Your task to perform on an android device: See recent photos Image 0: 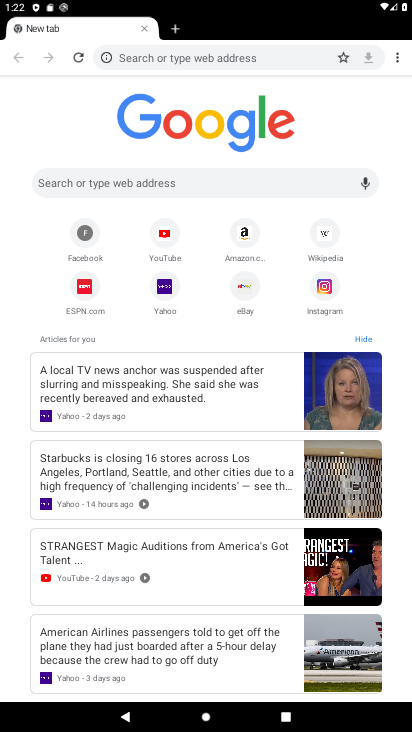
Step 0: click (394, 65)
Your task to perform on an android device: See recent photos Image 1: 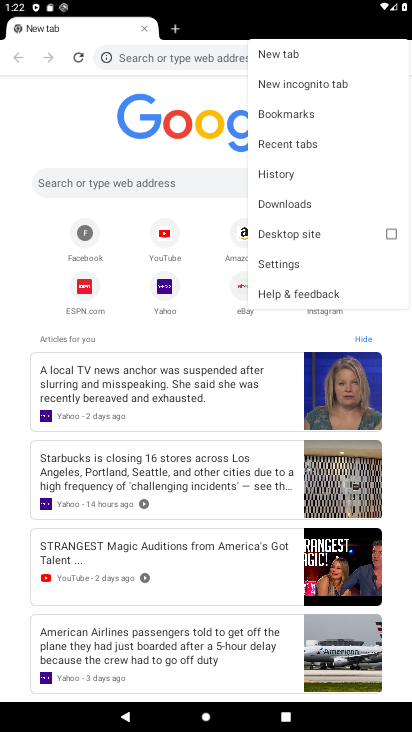
Step 1: click (278, 258)
Your task to perform on an android device: See recent photos Image 2: 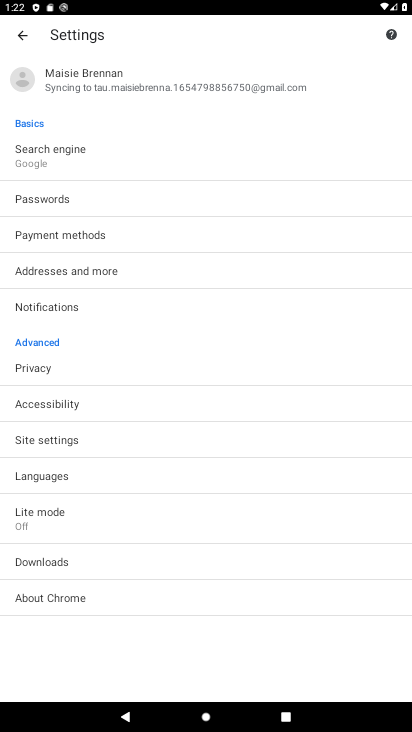
Step 2: click (198, 438)
Your task to perform on an android device: See recent photos Image 3: 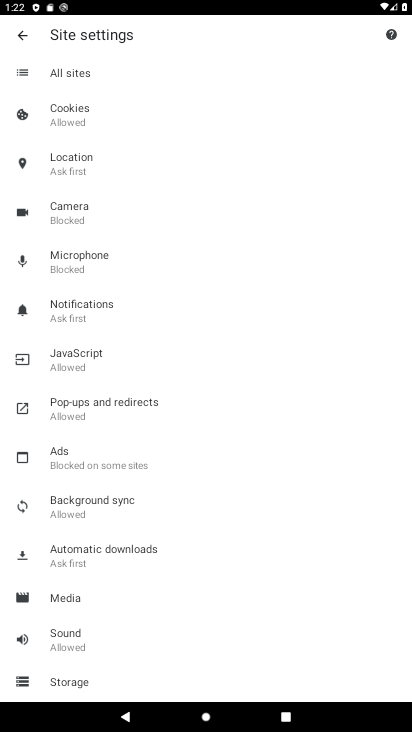
Step 3: press back button
Your task to perform on an android device: See recent photos Image 4: 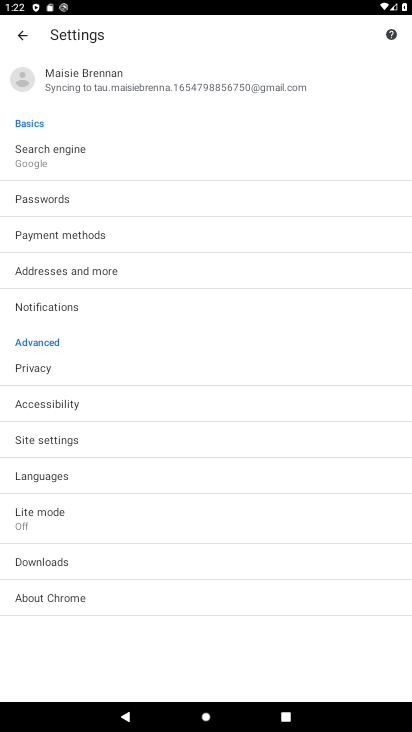
Step 4: press back button
Your task to perform on an android device: See recent photos Image 5: 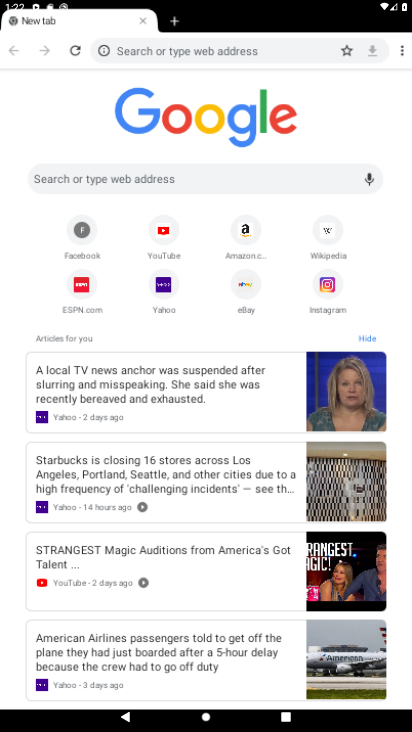
Step 5: press back button
Your task to perform on an android device: See recent photos Image 6: 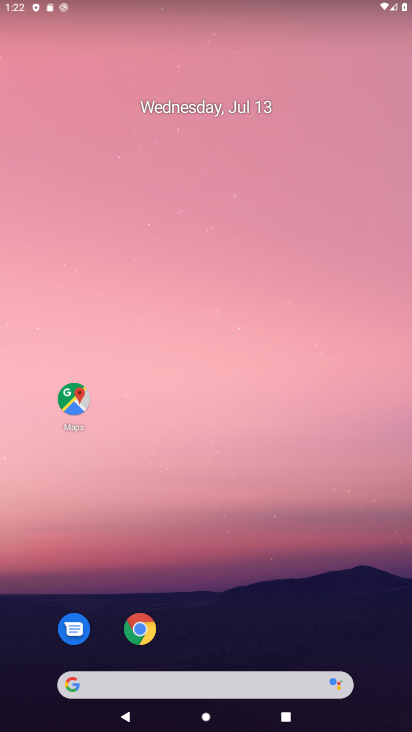
Step 6: drag from (296, 617) to (302, 240)
Your task to perform on an android device: See recent photos Image 7: 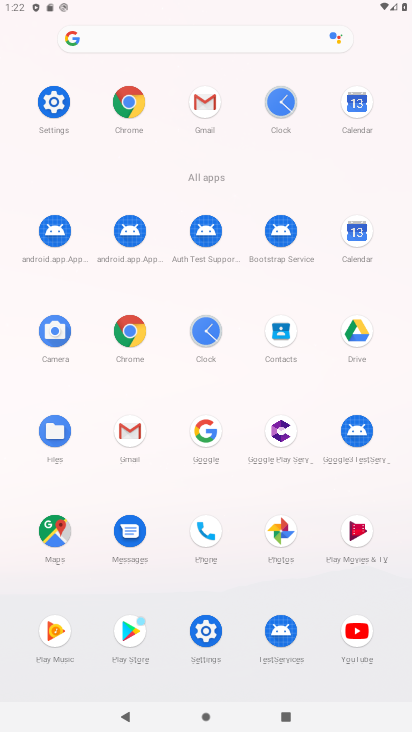
Step 7: click (272, 530)
Your task to perform on an android device: See recent photos Image 8: 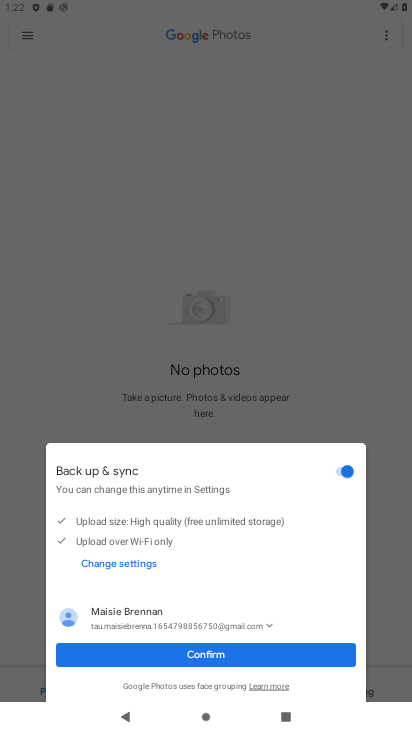
Step 8: click (276, 659)
Your task to perform on an android device: See recent photos Image 9: 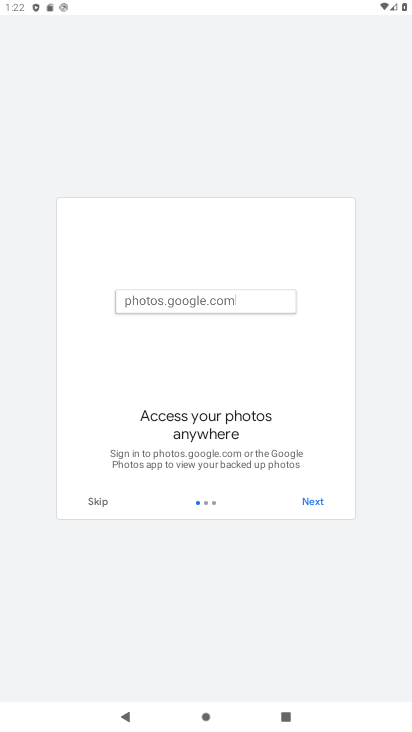
Step 9: click (323, 495)
Your task to perform on an android device: See recent photos Image 10: 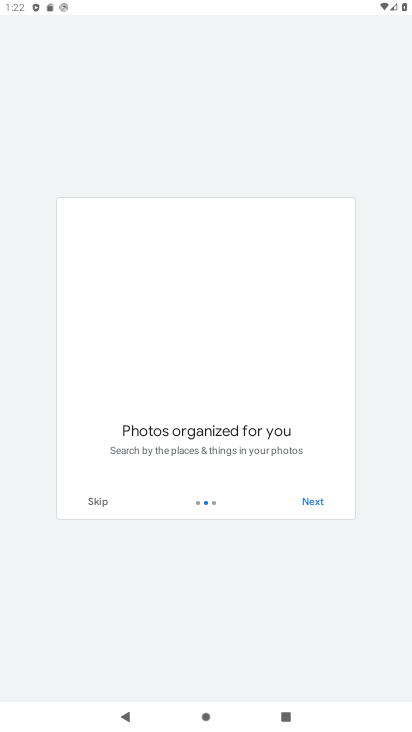
Step 10: click (323, 495)
Your task to perform on an android device: See recent photos Image 11: 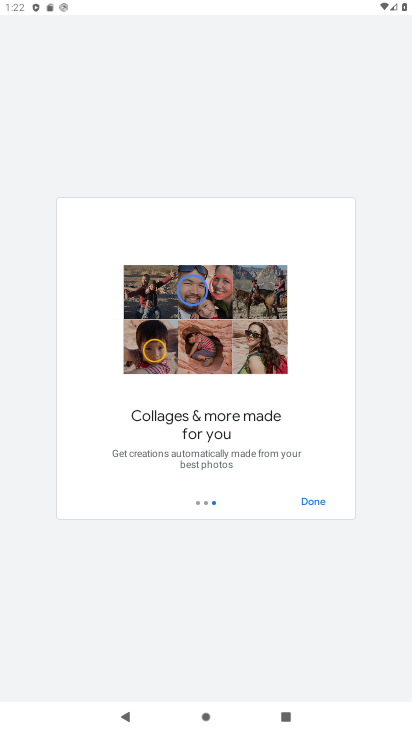
Step 11: click (323, 495)
Your task to perform on an android device: See recent photos Image 12: 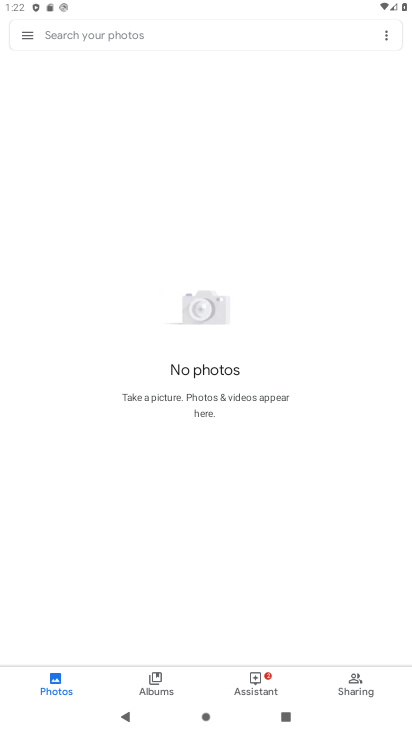
Step 12: click (29, 36)
Your task to perform on an android device: See recent photos Image 13: 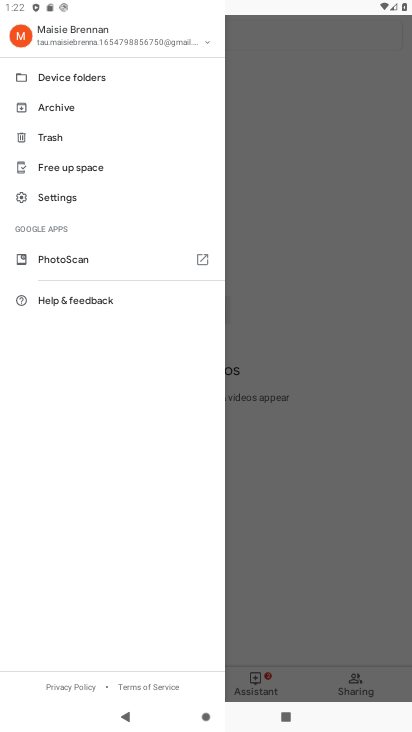
Step 13: click (92, 178)
Your task to perform on an android device: See recent photos Image 14: 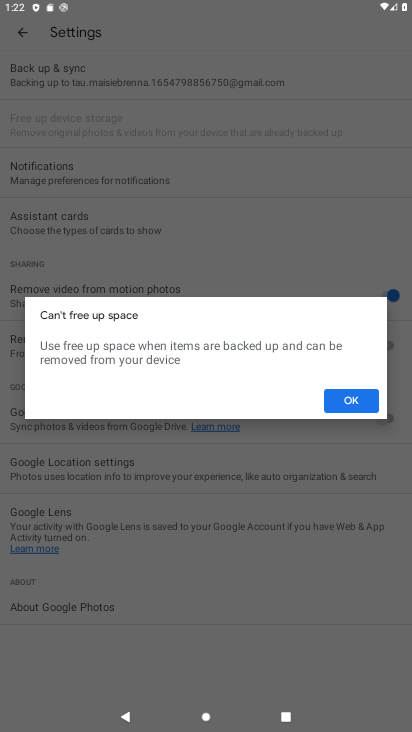
Step 14: task complete